Your task to perform on an android device: What's the weather? Image 0: 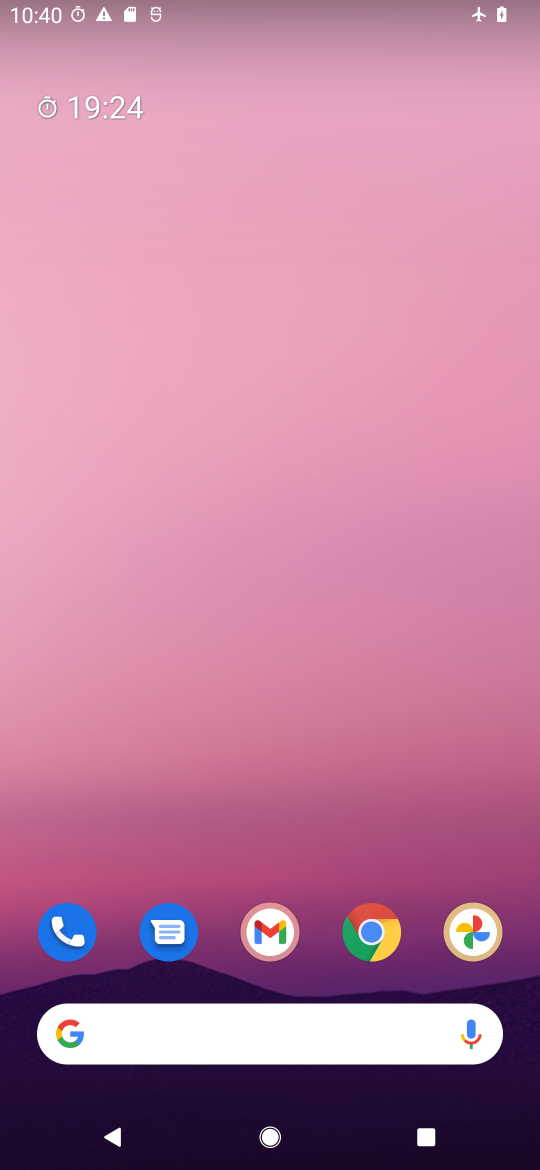
Step 0: drag from (205, 611) to (190, 99)
Your task to perform on an android device: What's the weather? Image 1: 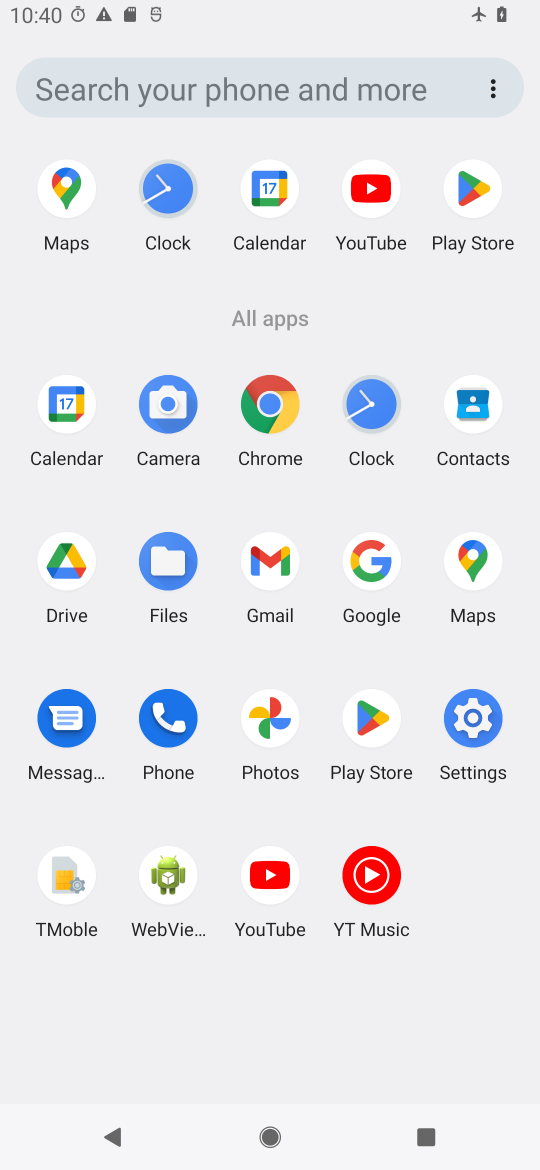
Step 1: click (367, 568)
Your task to perform on an android device: What's the weather? Image 2: 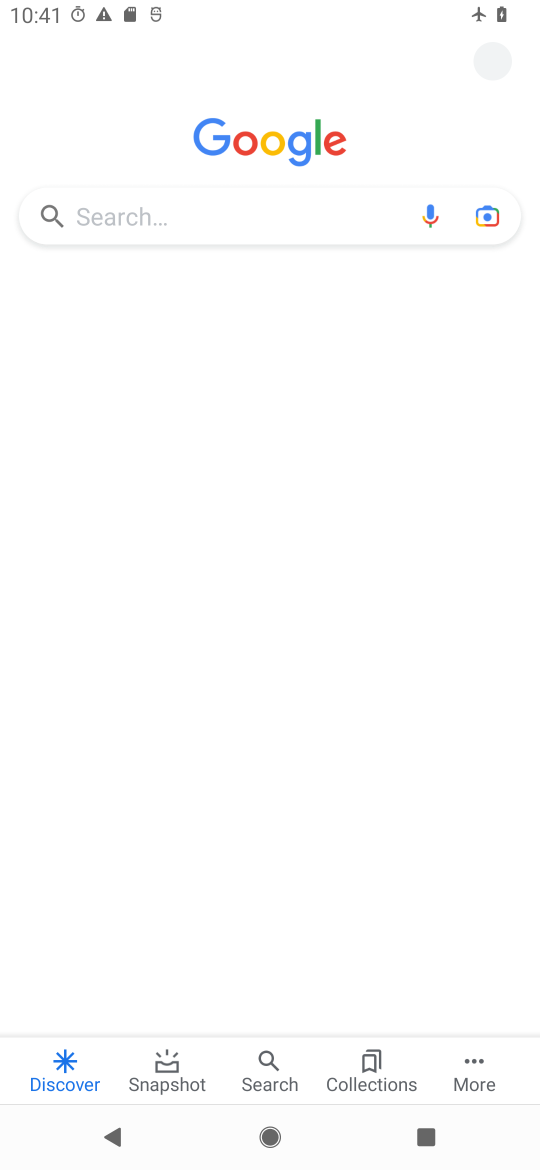
Step 2: click (197, 230)
Your task to perform on an android device: What's the weather? Image 3: 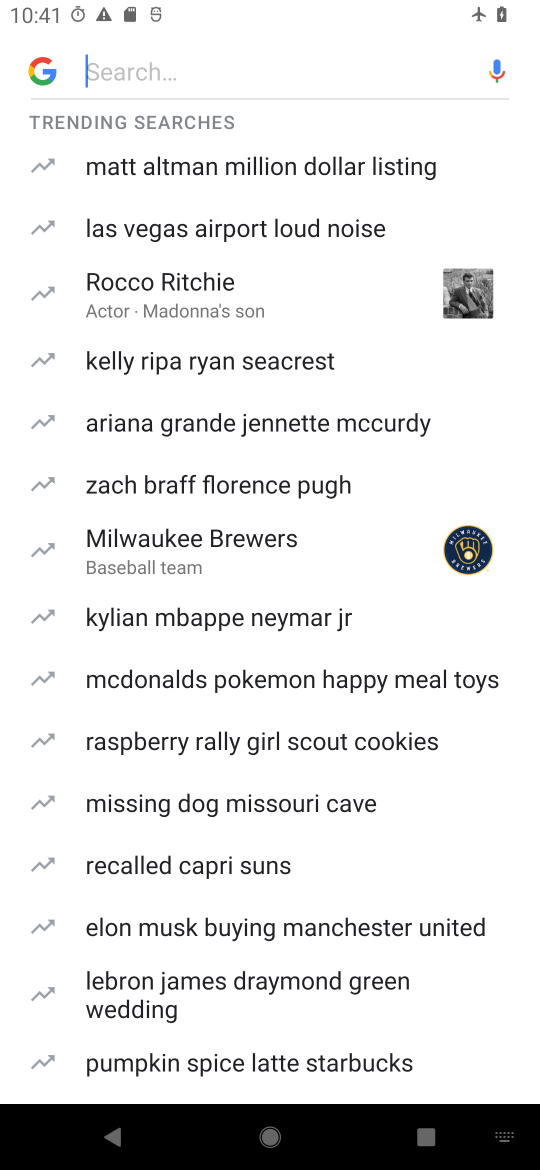
Step 3: type "weather"
Your task to perform on an android device: What's the weather? Image 4: 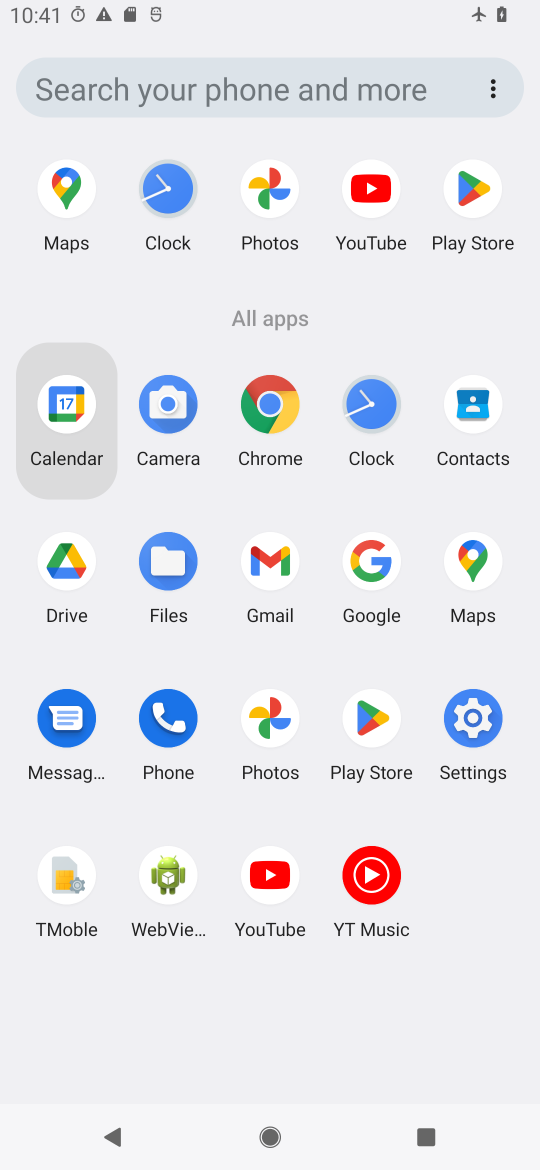
Step 4: task complete